Your task to perform on an android device: open app "Instagram" (install if not already installed) and go to login screen Image 0: 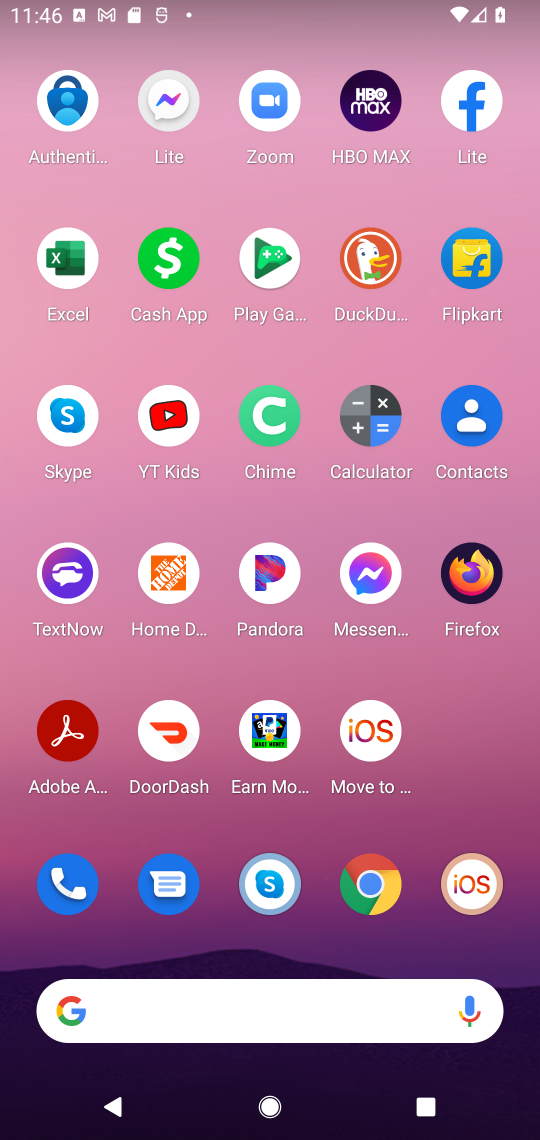
Step 0: drag from (233, 1019) to (287, 218)
Your task to perform on an android device: open app "Instagram" (install if not already installed) and go to login screen Image 1: 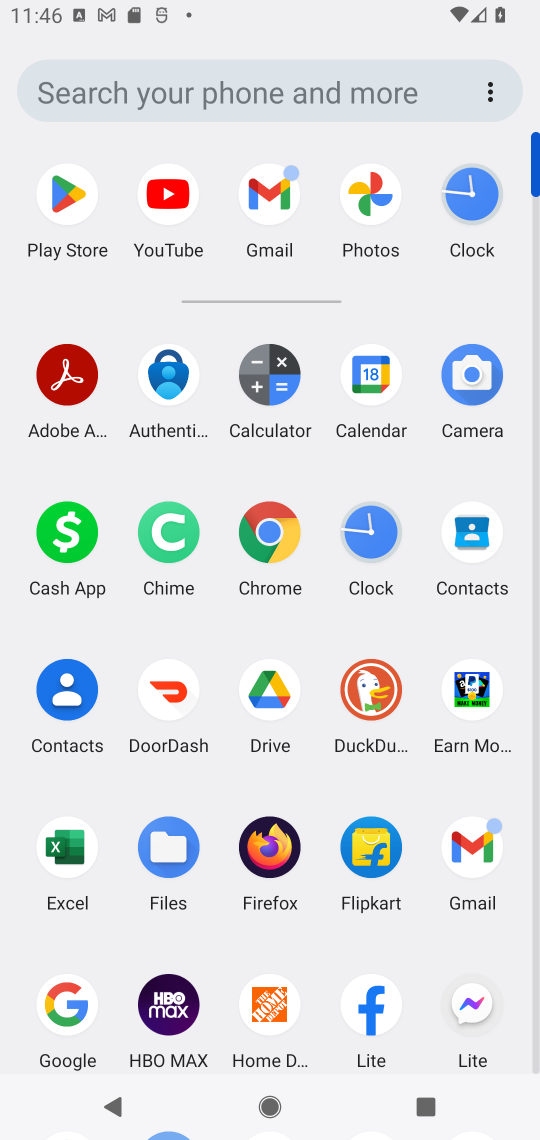
Step 1: drag from (251, 946) to (418, 285)
Your task to perform on an android device: open app "Instagram" (install if not already installed) and go to login screen Image 2: 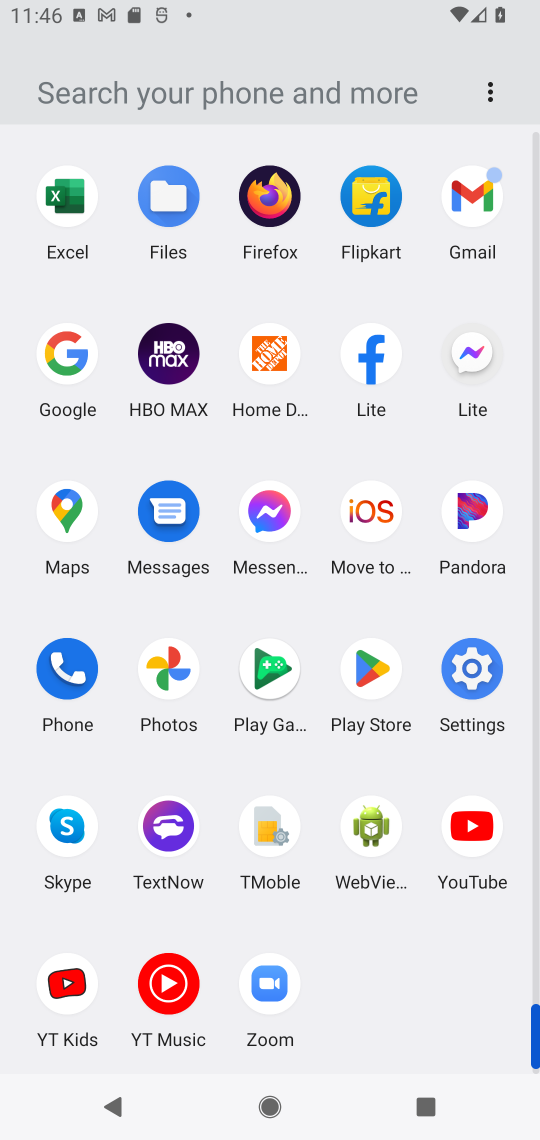
Step 2: click (380, 673)
Your task to perform on an android device: open app "Instagram" (install if not already installed) and go to login screen Image 3: 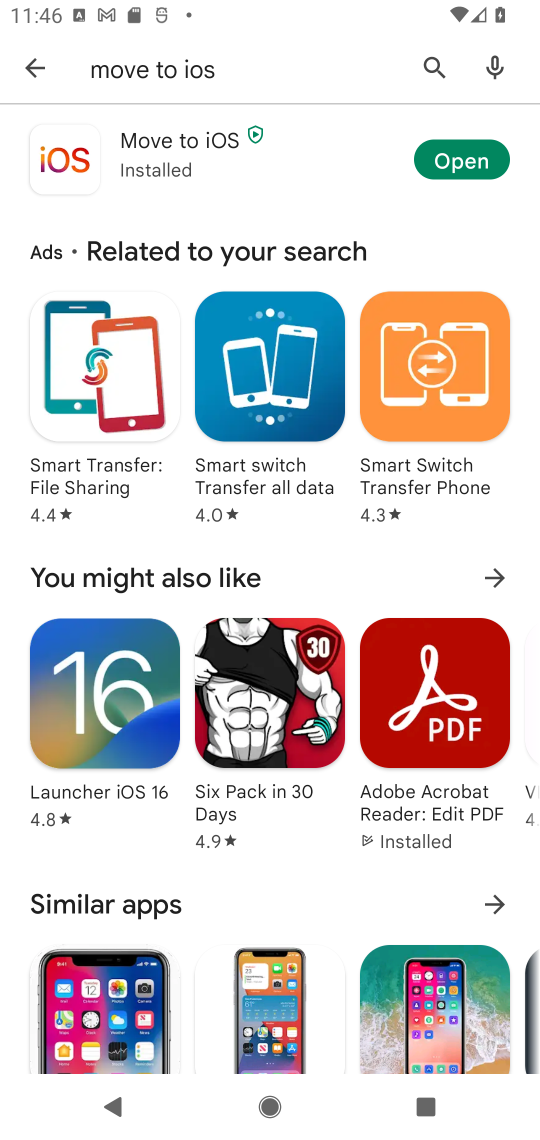
Step 3: press back button
Your task to perform on an android device: open app "Instagram" (install if not already installed) and go to login screen Image 4: 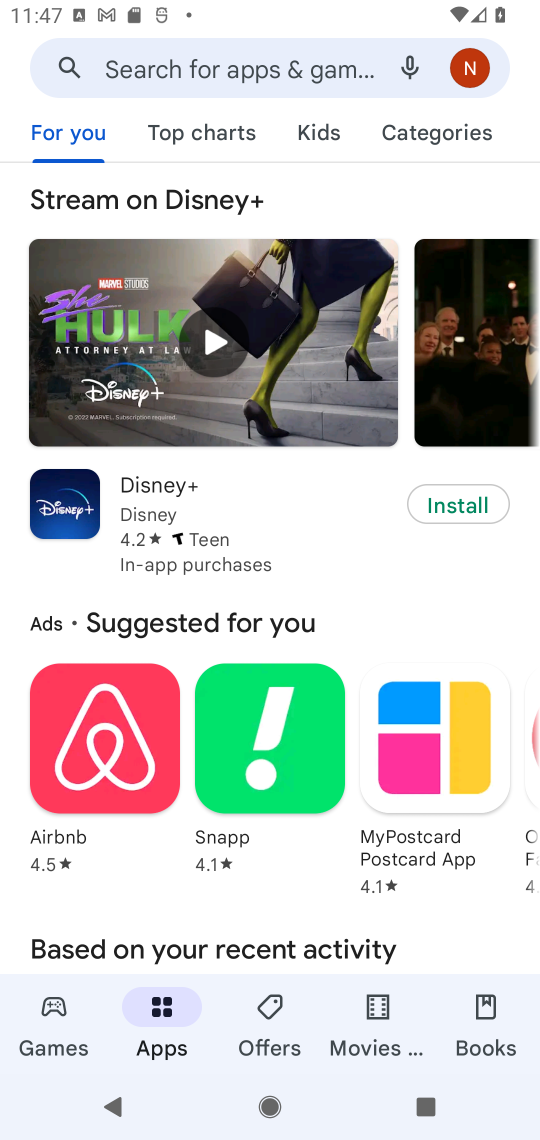
Step 4: click (287, 70)
Your task to perform on an android device: open app "Instagram" (install if not already installed) and go to login screen Image 5: 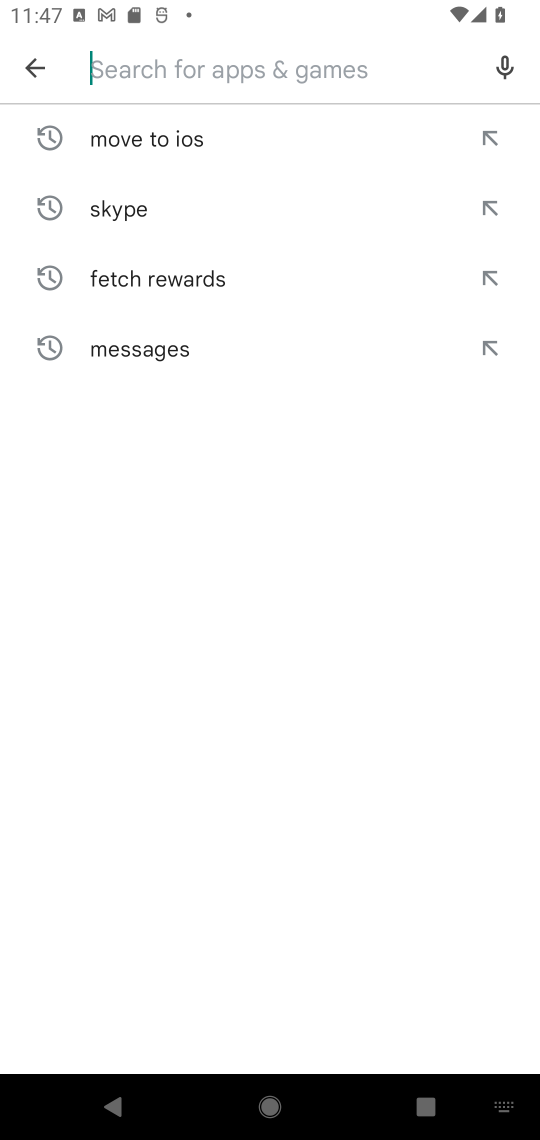
Step 5: type "Instagram"
Your task to perform on an android device: open app "Instagram" (install if not already installed) and go to login screen Image 6: 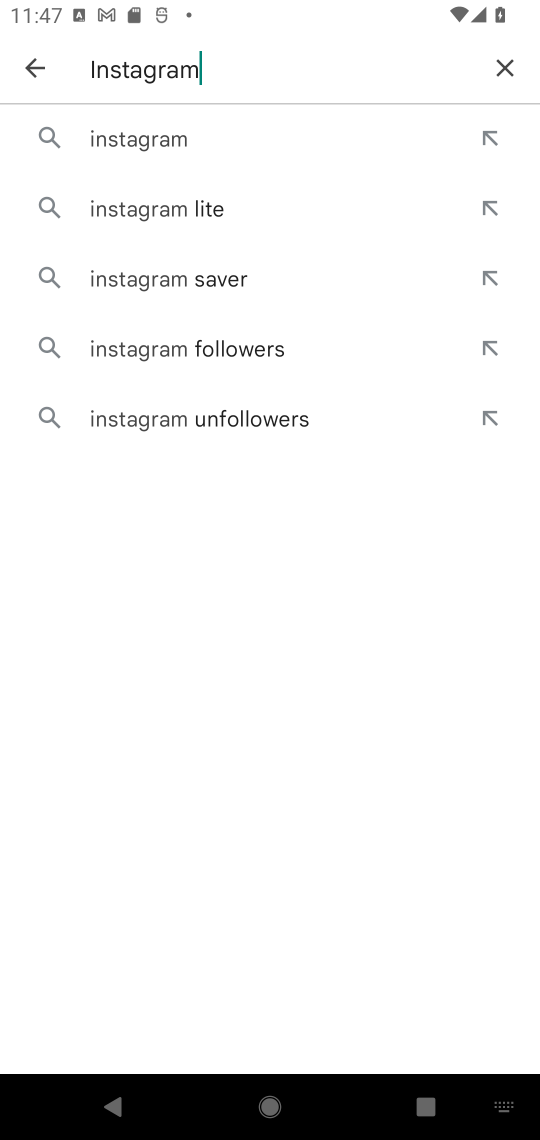
Step 6: click (165, 141)
Your task to perform on an android device: open app "Instagram" (install if not already installed) and go to login screen Image 7: 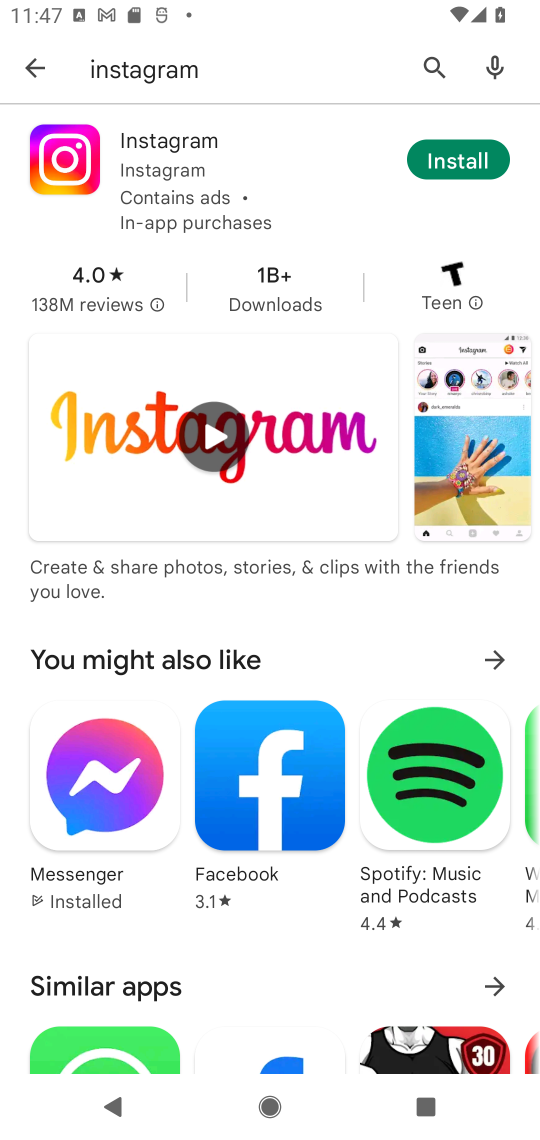
Step 7: click (464, 171)
Your task to perform on an android device: open app "Instagram" (install if not already installed) and go to login screen Image 8: 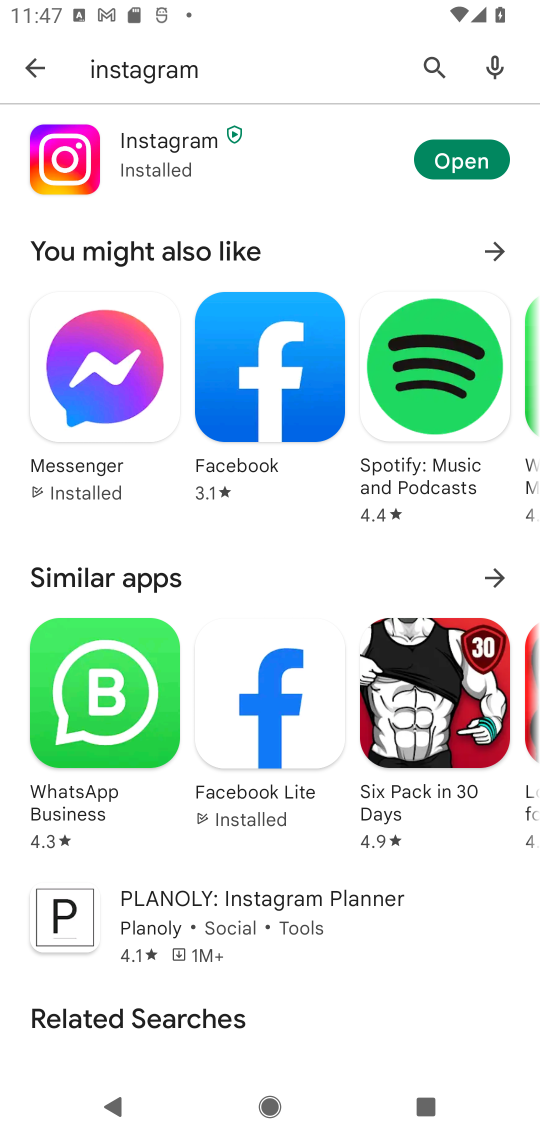
Step 8: click (474, 163)
Your task to perform on an android device: open app "Instagram" (install if not already installed) and go to login screen Image 9: 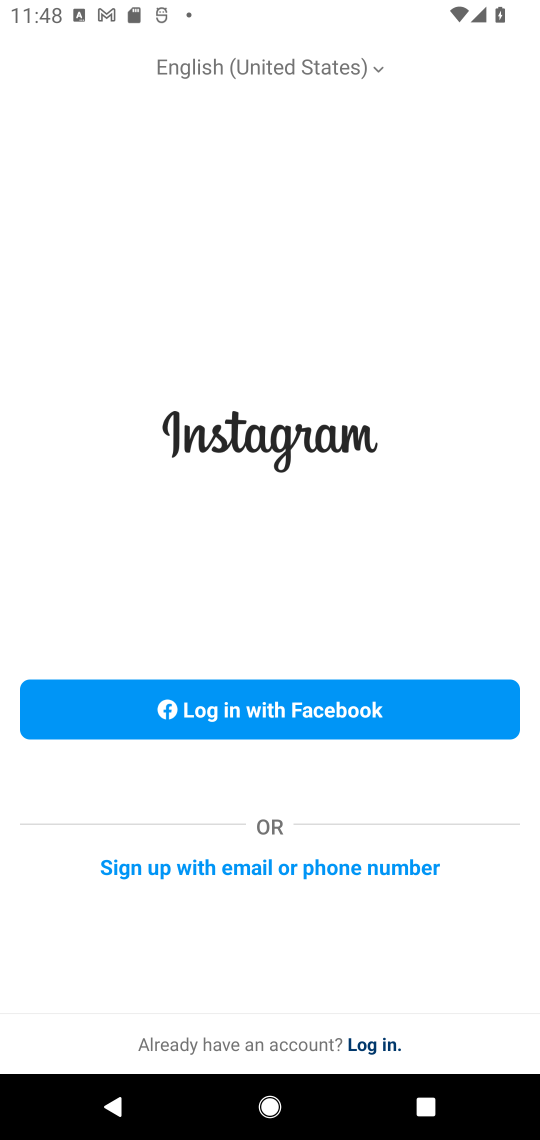
Step 9: task complete